Your task to perform on an android device: Open calendar and show me the third week of next month Image 0: 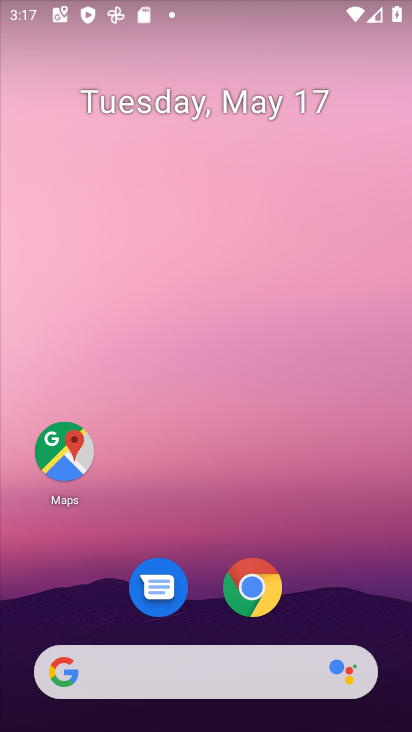
Step 0: drag from (133, 687) to (114, 2)
Your task to perform on an android device: Open calendar and show me the third week of next month Image 1: 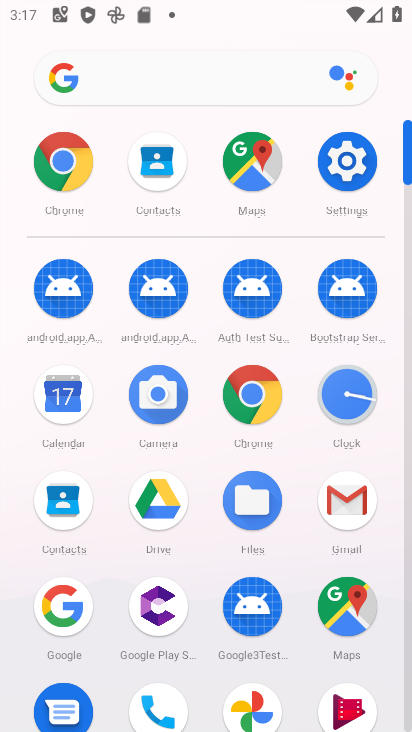
Step 1: click (49, 387)
Your task to perform on an android device: Open calendar and show me the third week of next month Image 2: 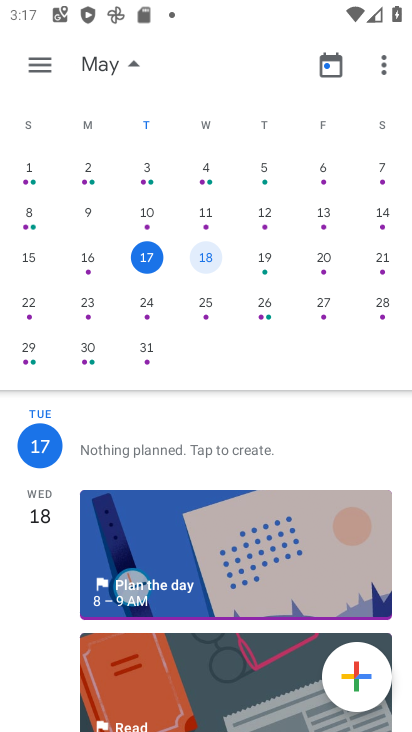
Step 2: drag from (372, 288) to (55, 323)
Your task to perform on an android device: Open calendar and show me the third week of next month Image 3: 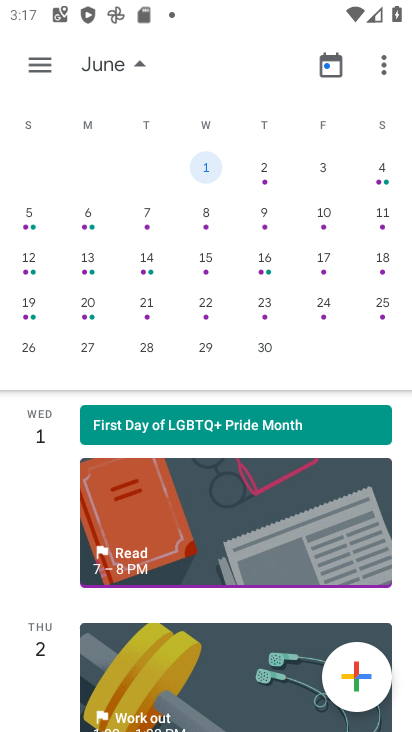
Step 3: click (258, 260)
Your task to perform on an android device: Open calendar and show me the third week of next month Image 4: 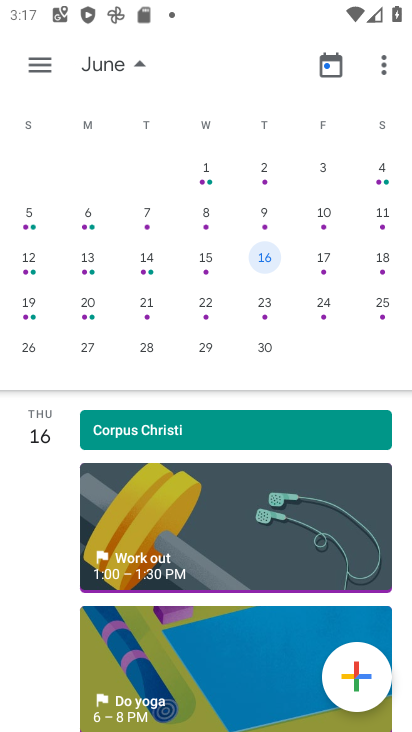
Step 4: task complete